Your task to perform on an android device: Go to settings Image 0: 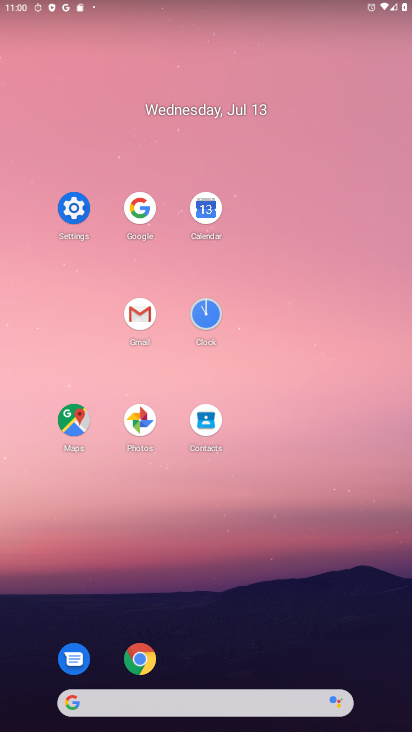
Step 0: click (69, 203)
Your task to perform on an android device: Go to settings Image 1: 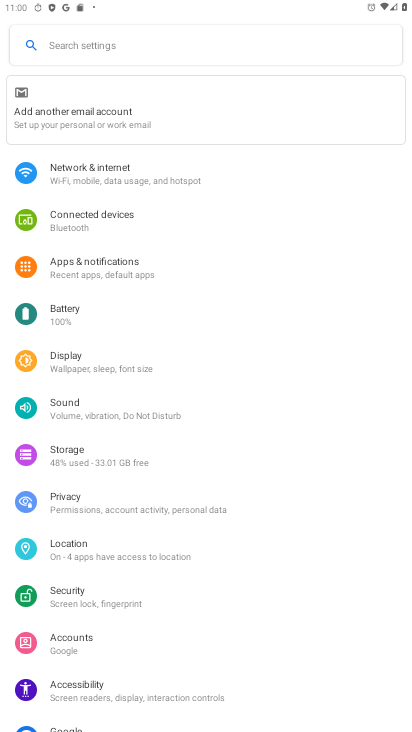
Step 1: task complete